Your task to perform on an android device: open the mobile data screen to see how much data has been used Image 0: 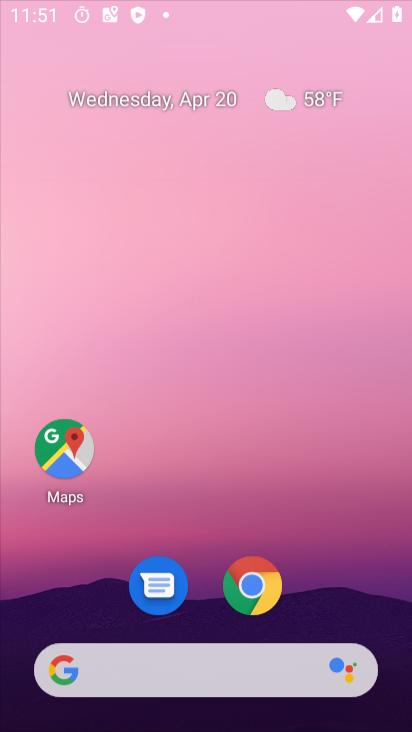
Step 0: click (215, 348)
Your task to perform on an android device: open the mobile data screen to see how much data has been used Image 1: 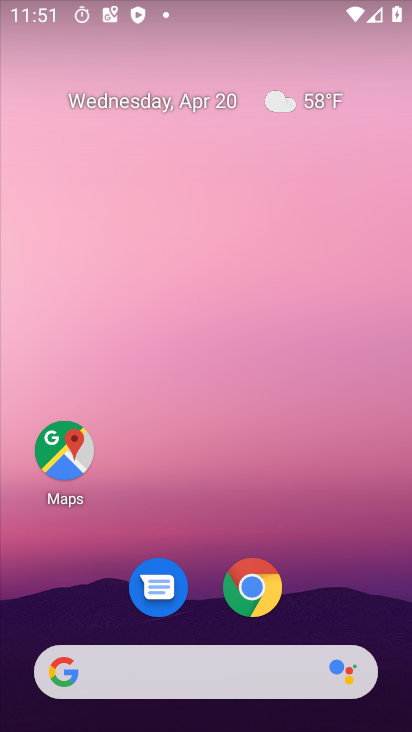
Step 1: click (251, 583)
Your task to perform on an android device: open the mobile data screen to see how much data has been used Image 2: 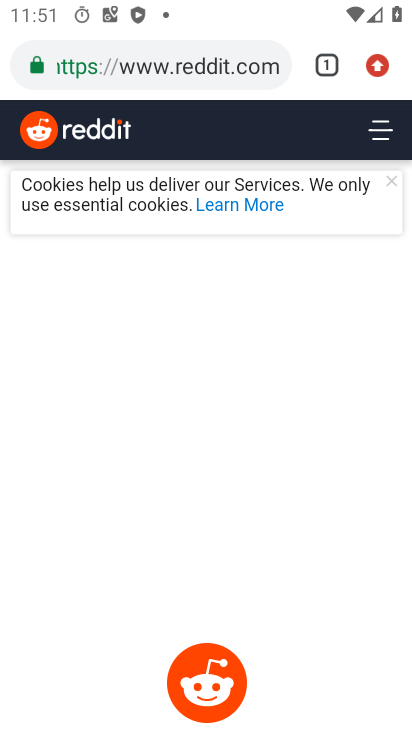
Step 2: click (380, 62)
Your task to perform on an android device: open the mobile data screen to see how much data has been used Image 3: 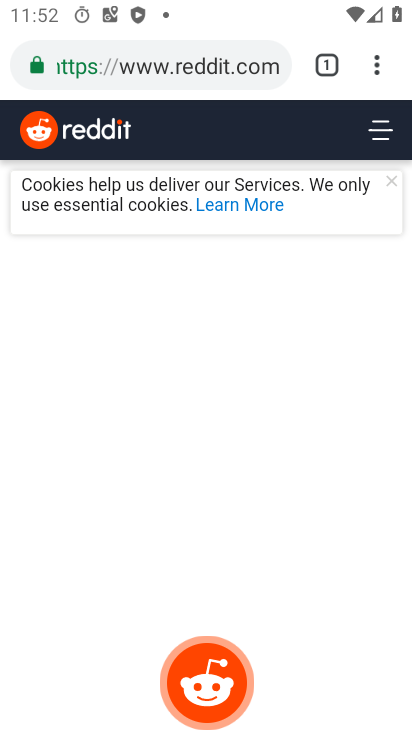
Step 3: press home button
Your task to perform on an android device: open the mobile data screen to see how much data has been used Image 4: 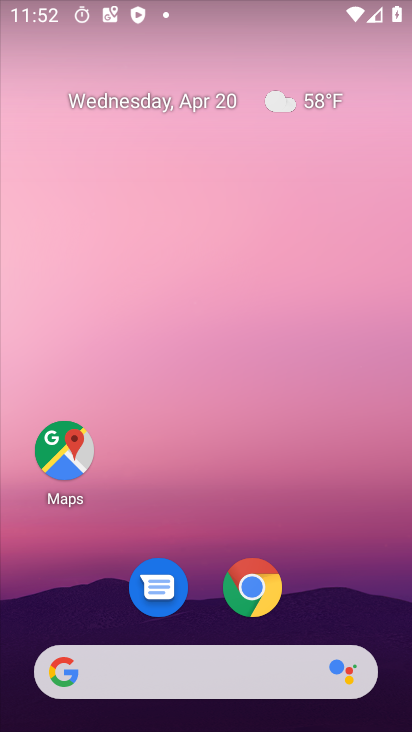
Step 4: drag from (199, 538) to (317, 1)
Your task to perform on an android device: open the mobile data screen to see how much data has been used Image 5: 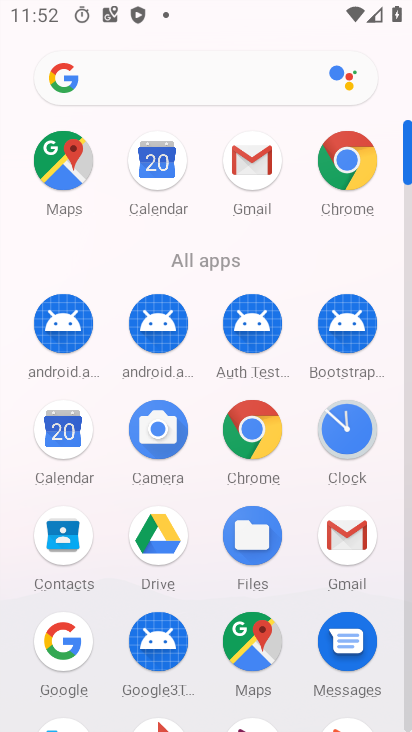
Step 5: drag from (199, 582) to (272, 21)
Your task to perform on an android device: open the mobile data screen to see how much data has been used Image 6: 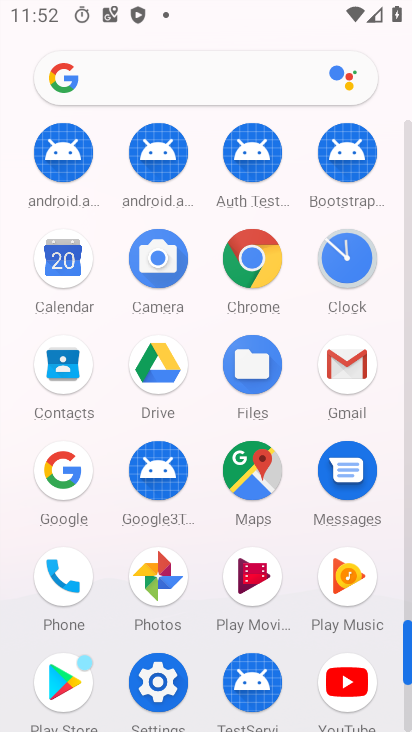
Step 6: click (156, 683)
Your task to perform on an android device: open the mobile data screen to see how much data has been used Image 7: 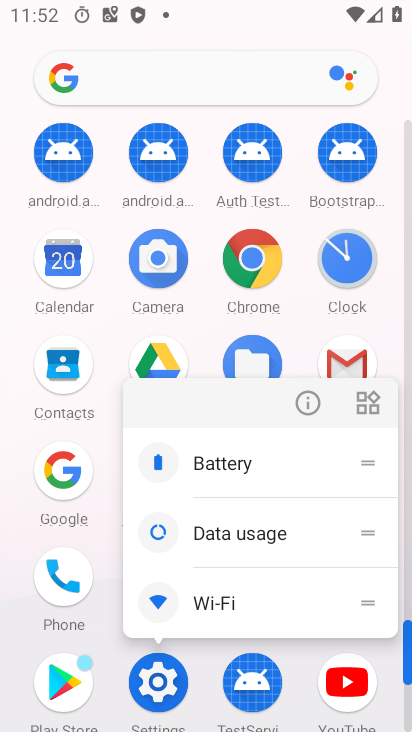
Step 7: click (156, 682)
Your task to perform on an android device: open the mobile data screen to see how much data has been used Image 8: 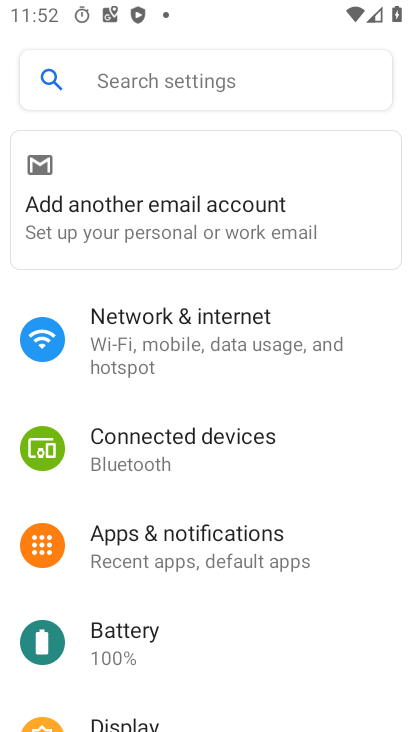
Step 8: click (186, 344)
Your task to perform on an android device: open the mobile data screen to see how much data has been used Image 9: 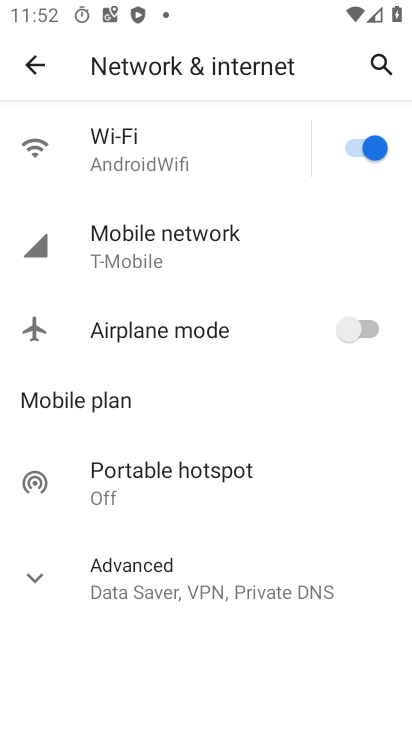
Step 9: click (98, 265)
Your task to perform on an android device: open the mobile data screen to see how much data has been used Image 10: 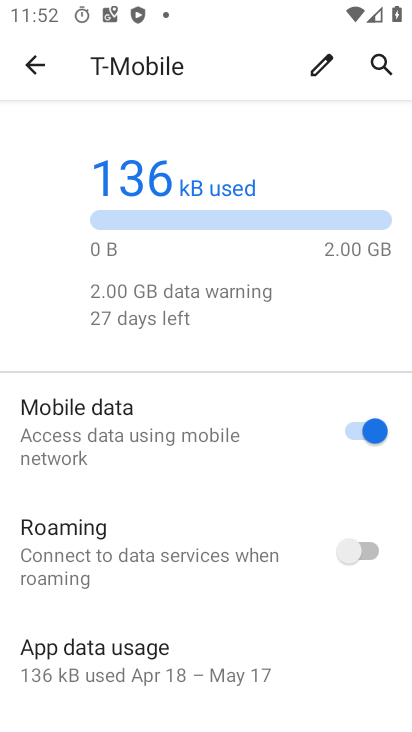
Step 10: drag from (196, 581) to (183, 390)
Your task to perform on an android device: open the mobile data screen to see how much data has been used Image 11: 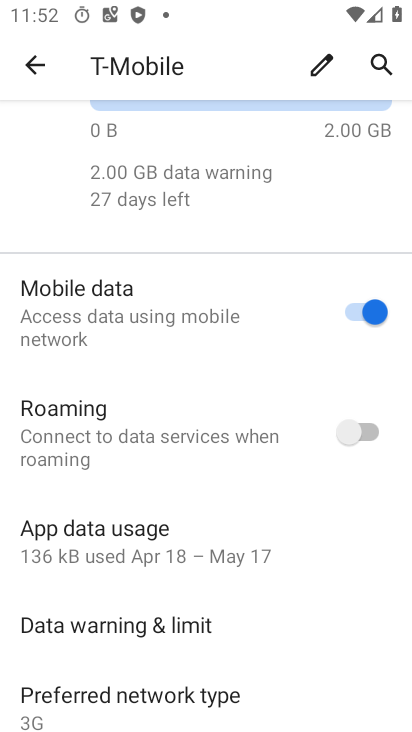
Step 11: click (135, 550)
Your task to perform on an android device: open the mobile data screen to see how much data has been used Image 12: 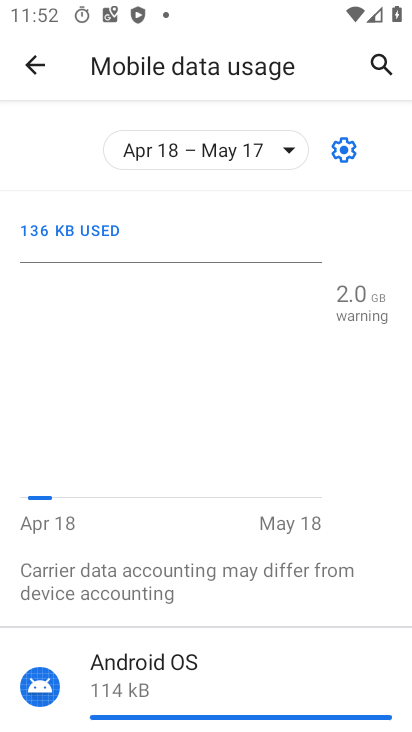
Step 12: task complete